Your task to perform on an android device: Search for the best-rated coffee table on Crate & Barrel Image 0: 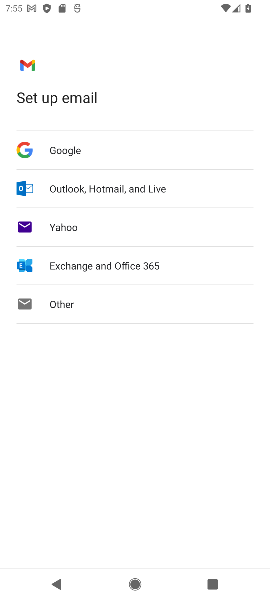
Step 0: press home button
Your task to perform on an android device: Search for the best-rated coffee table on Crate & Barrel Image 1: 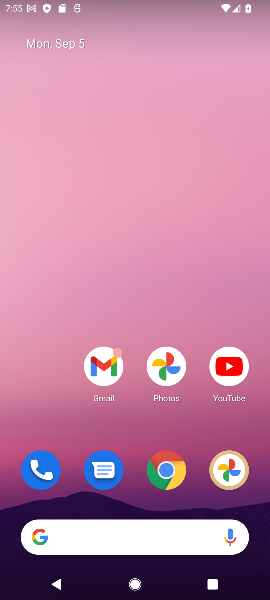
Step 1: drag from (120, 75) to (12, 462)
Your task to perform on an android device: Search for the best-rated coffee table on Crate & Barrel Image 2: 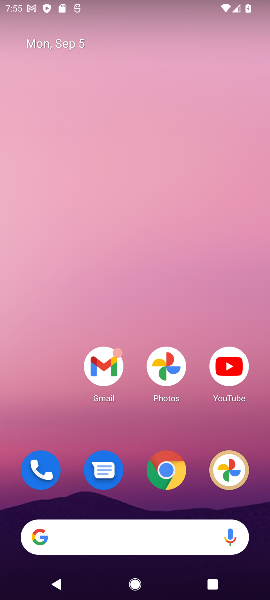
Step 2: click (157, 476)
Your task to perform on an android device: Search for the best-rated coffee table on Crate & Barrel Image 3: 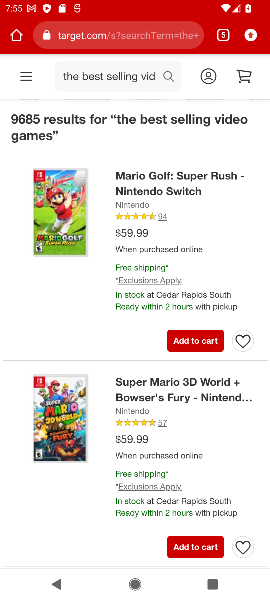
Step 3: click (219, 36)
Your task to perform on an android device: Search for the best-rated coffee table on Crate & Barrel Image 4: 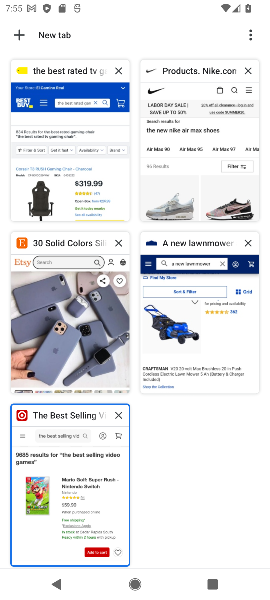
Step 4: click (114, 74)
Your task to perform on an android device: Search for the best-rated coffee table on Crate & Barrel Image 5: 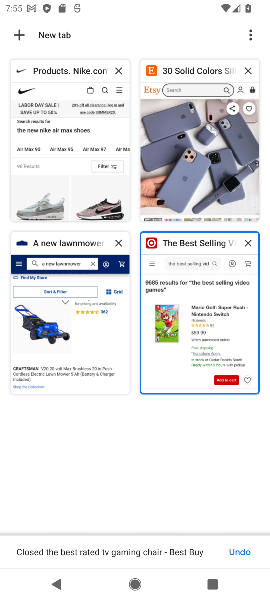
Step 5: click (114, 72)
Your task to perform on an android device: Search for the best-rated coffee table on Crate & Barrel Image 6: 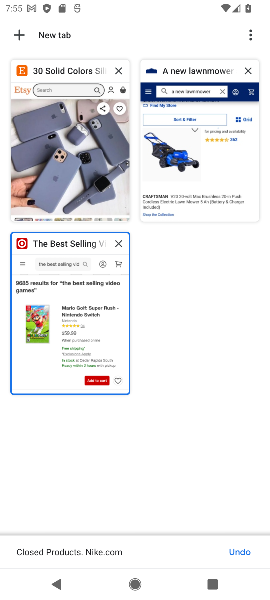
Step 6: click (114, 72)
Your task to perform on an android device: Search for the best-rated coffee table on Crate & Barrel Image 7: 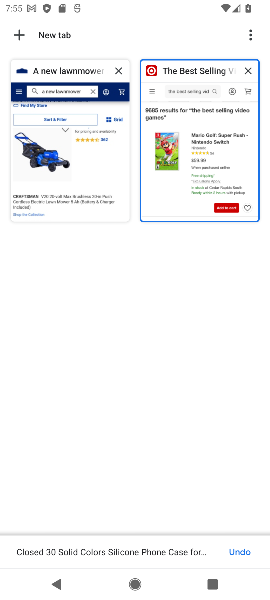
Step 7: click (114, 72)
Your task to perform on an android device: Search for the best-rated coffee table on Crate & Barrel Image 8: 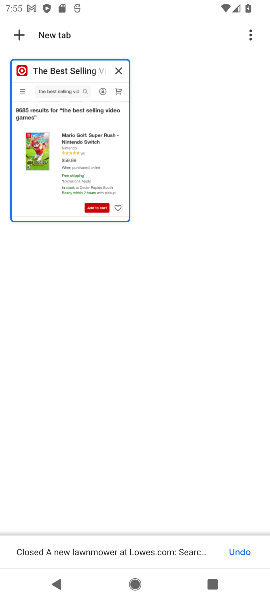
Step 8: click (114, 72)
Your task to perform on an android device: Search for the best-rated coffee table on Crate & Barrel Image 9: 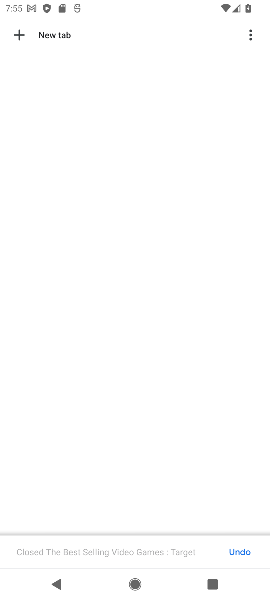
Step 9: click (23, 33)
Your task to perform on an android device: Search for the best-rated coffee table on Crate & Barrel Image 10: 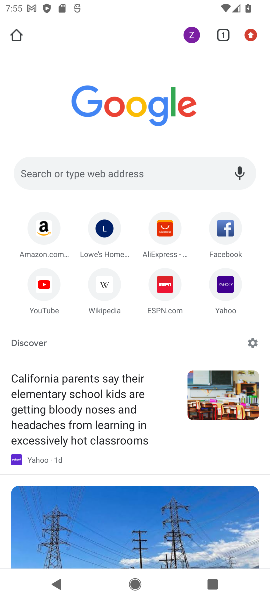
Step 10: click (115, 180)
Your task to perform on an android device: Search for the best-rated coffee table on Crate & Barrel Image 11: 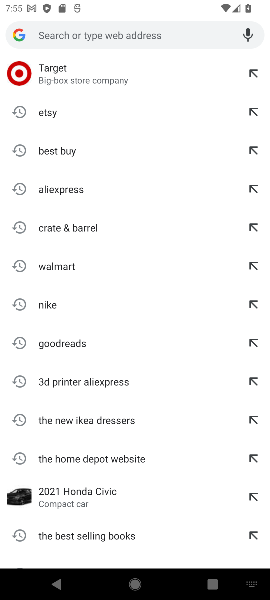
Step 11: type " Crate & Barrel"
Your task to perform on an android device: Search for the best-rated coffee table on Crate & Barrel Image 12: 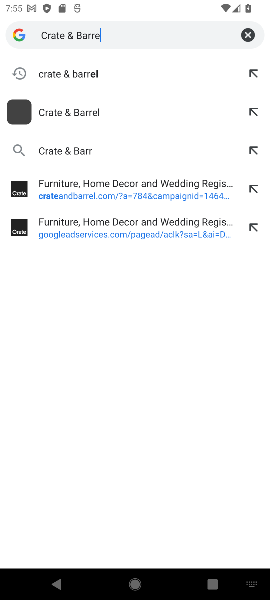
Step 12: type ""
Your task to perform on an android device: Search for the best-rated coffee table on Crate & Barrel Image 13: 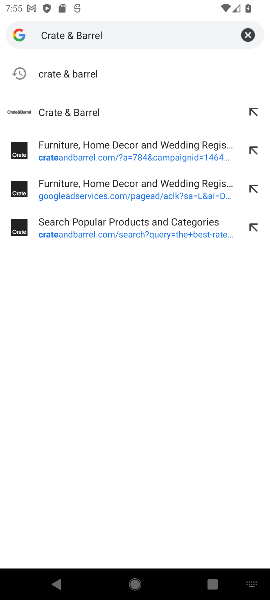
Step 13: click (70, 69)
Your task to perform on an android device: Search for the best-rated coffee table on Crate & Barrel Image 14: 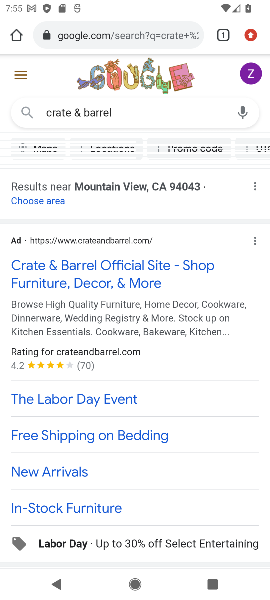
Step 14: click (68, 280)
Your task to perform on an android device: Search for the best-rated coffee table on Crate & Barrel Image 15: 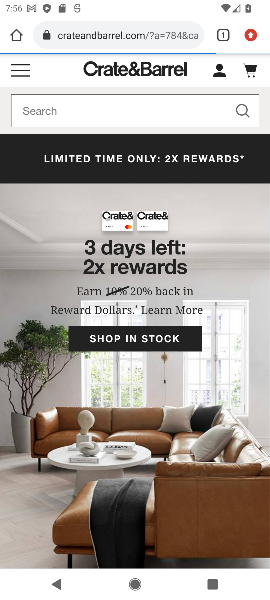
Step 15: click (136, 90)
Your task to perform on an android device: Search for the best-rated coffee table on Crate & Barrel Image 16: 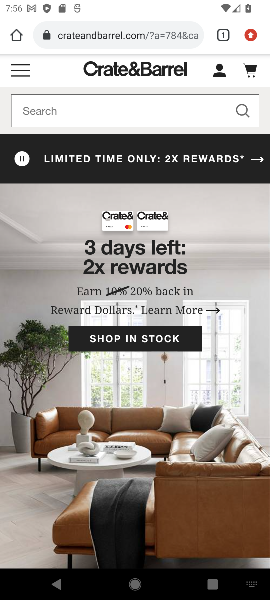
Step 16: click (127, 99)
Your task to perform on an android device: Search for the best-rated coffee table on Crate & Barrel Image 17: 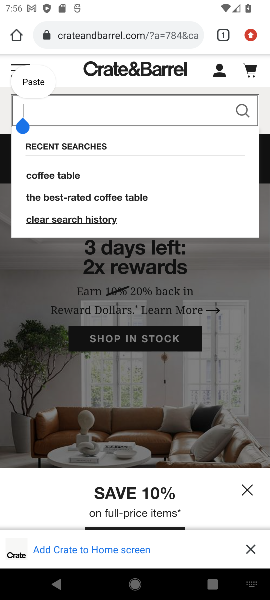
Step 17: type "the best-rated coffee table"
Your task to perform on an android device: Search for the best-rated coffee table on Crate & Barrel Image 18: 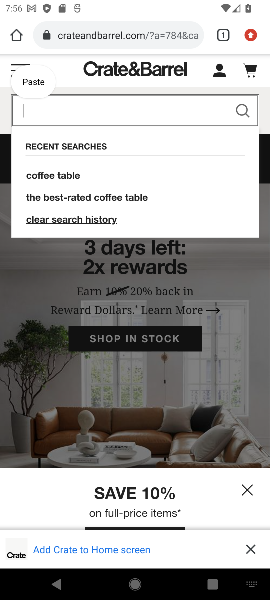
Step 18: type ""
Your task to perform on an android device: Search for the best-rated coffee table on Crate & Barrel Image 19: 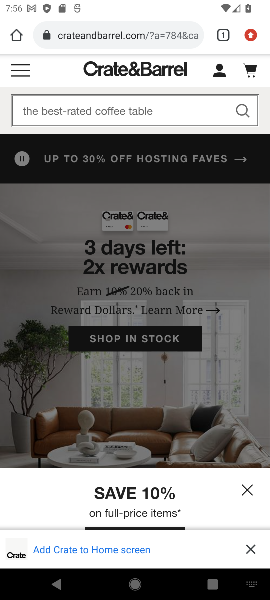
Step 19: click (249, 488)
Your task to perform on an android device: Search for the best-rated coffee table on Crate & Barrel Image 20: 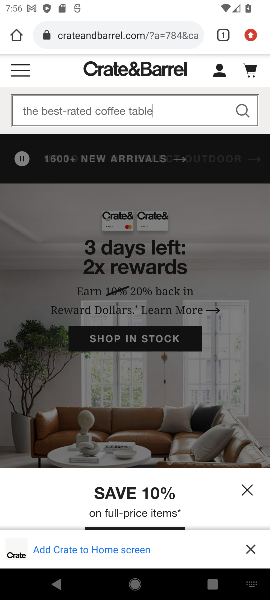
Step 20: click (252, 543)
Your task to perform on an android device: Search for the best-rated coffee table on Crate & Barrel Image 21: 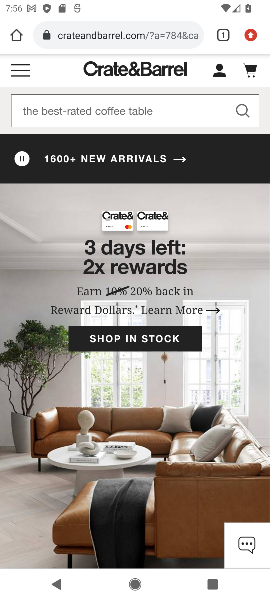
Step 21: task complete